Your task to perform on an android device: Open network settings Image 0: 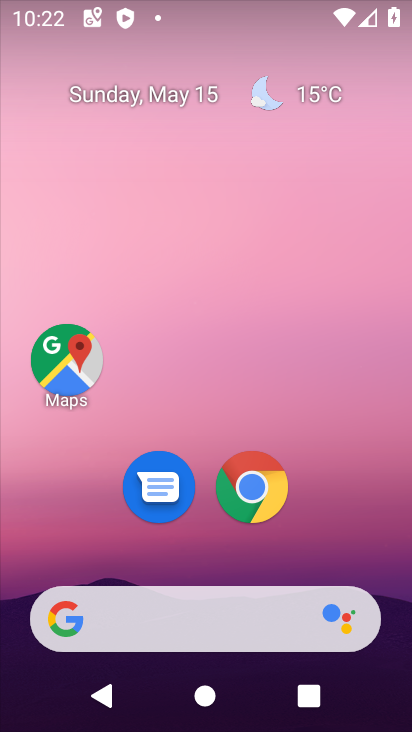
Step 0: drag from (392, 598) to (324, 144)
Your task to perform on an android device: Open network settings Image 1: 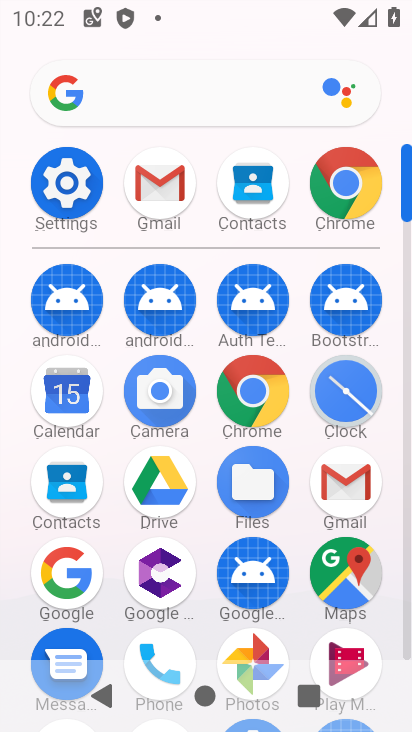
Step 1: click (407, 649)
Your task to perform on an android device: Open network settings Image 2: 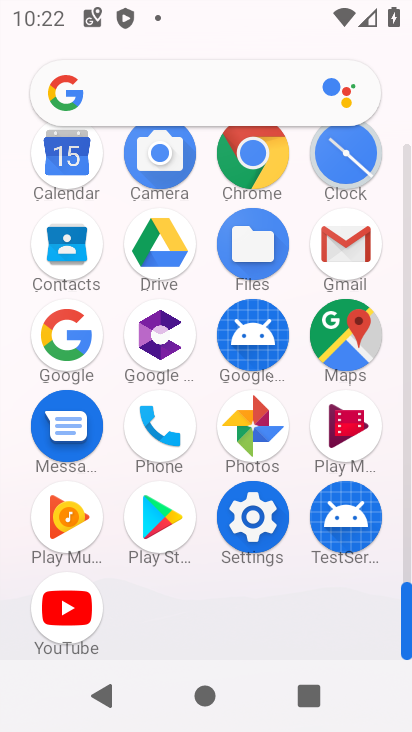
Step 2: click (254, 520)
Your task to perform on an android device: Open network settings Image 3: 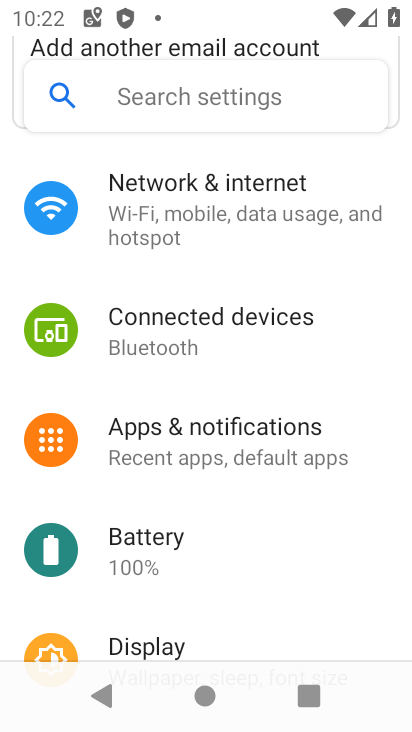
Step 3: click (154, 205)
Your task to perform on an android device: Open network settings Image 4: 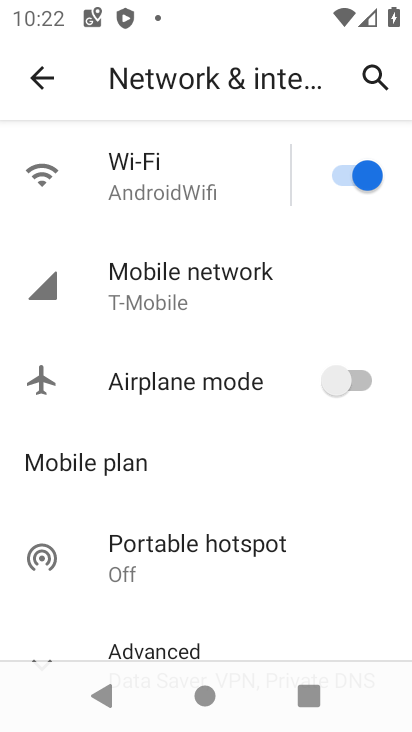
Step 4: click (133, 287)
Your task to perform on an android device: Open network settings Image 5: 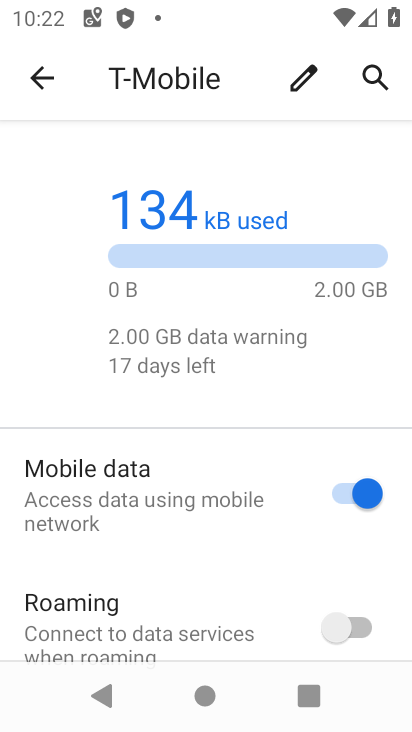
Step 5: drag from (253, 545) to (228, 223)
Your task to perform on an android device: Open network settings Image 6: 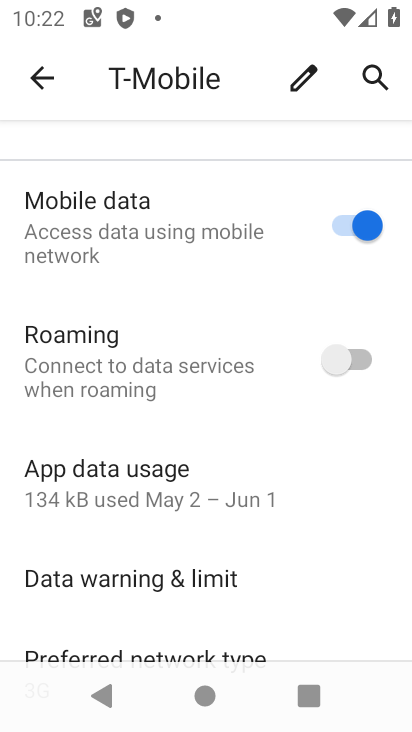
Step 6: drag from (231, 606) to (188, 246)
Your task to perform on an android device: Open network settings Image 7: 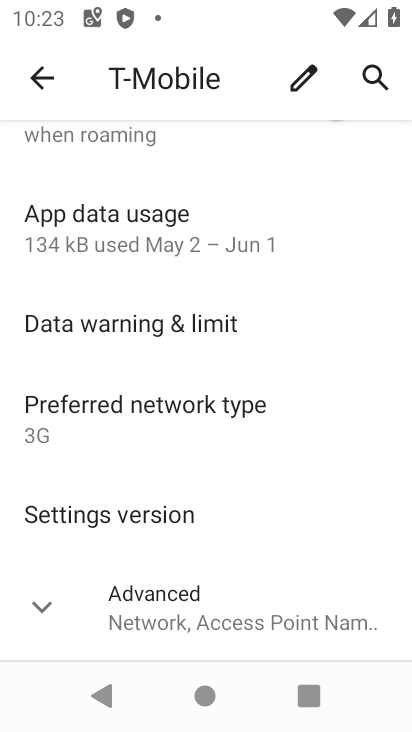
Step 7: click (37, 601)
Your task to perform on an android device: Open network settings Image 8: 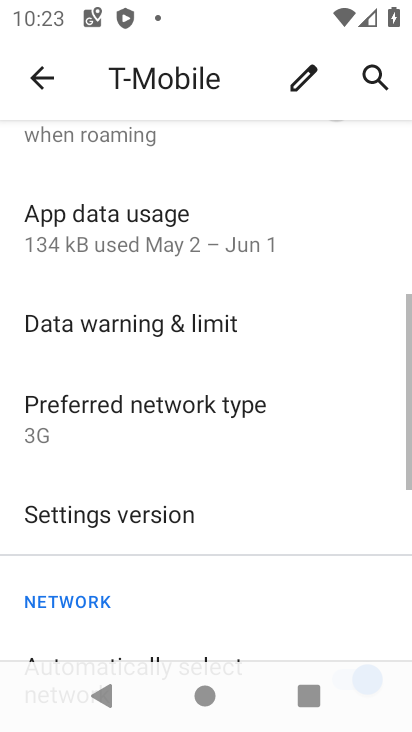
Step 8: task complete